Your task to perform on an android device: Open ESPN.com Image 0: 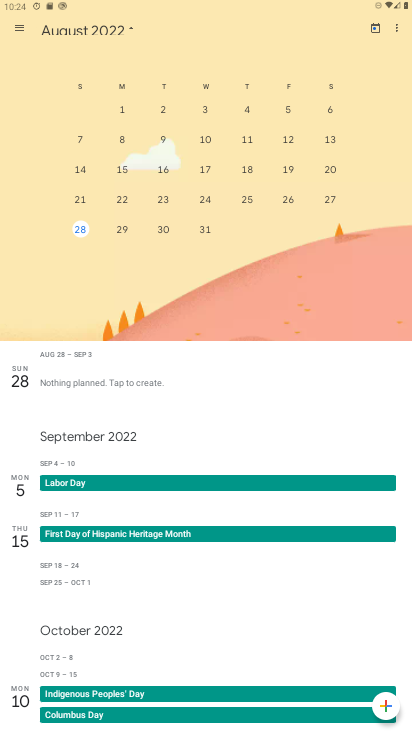
Step 0: press home button
Your task to perform on an android device: Open ESPN.com Image 1: 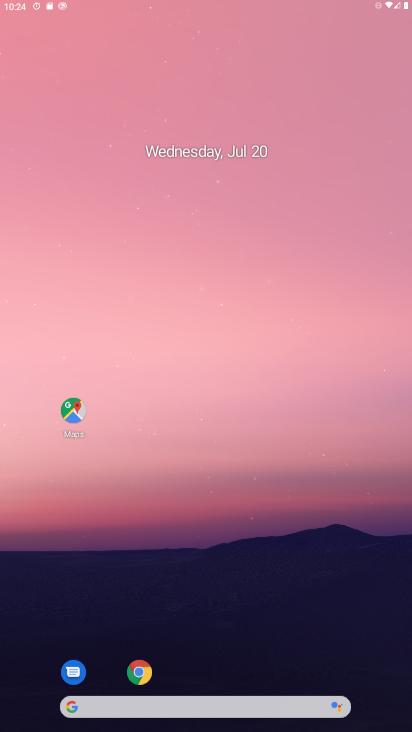
Step 1: drag from (371, 680) to (180, 3)
Your task to perform on an android device: Open ESPN.com Image 2: 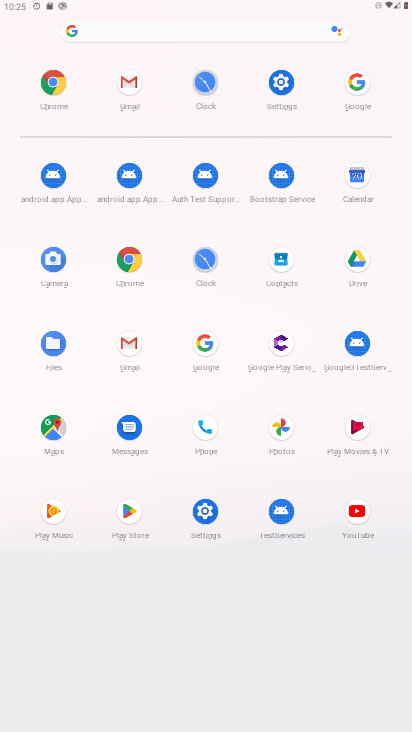
Step 2: click (210, 346)
Your task to perform on an android device: Open ESPN.com Image 3: 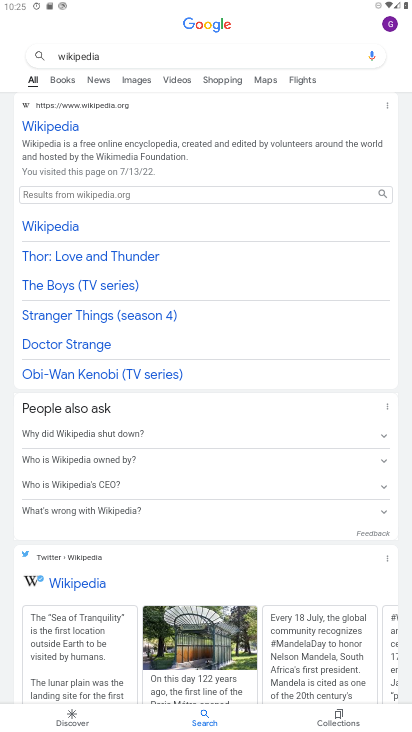
Step 3: press back button
Your task to perform on an android device: Open ESPN.com Image 4: 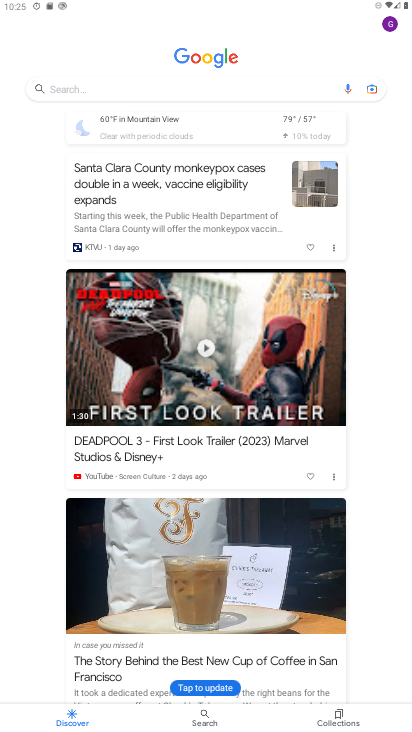
Step 4: click (61, 87)
Your task to perform on an android device: Open ESPN.com Image 5: 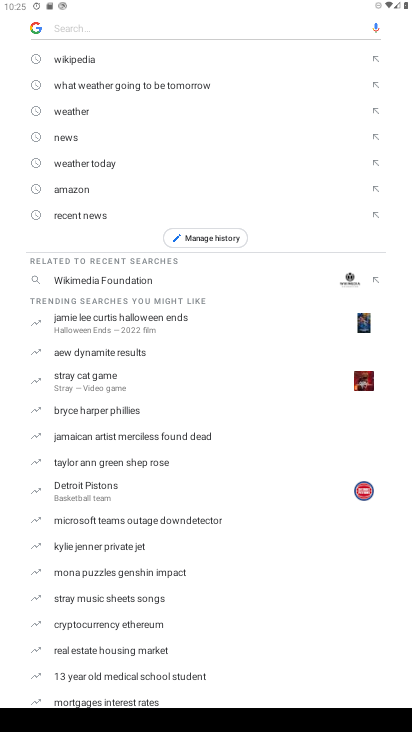
Step 5: type "ESPN.com"
Your task to perform on an android device: Open ESPN.com Image 6: 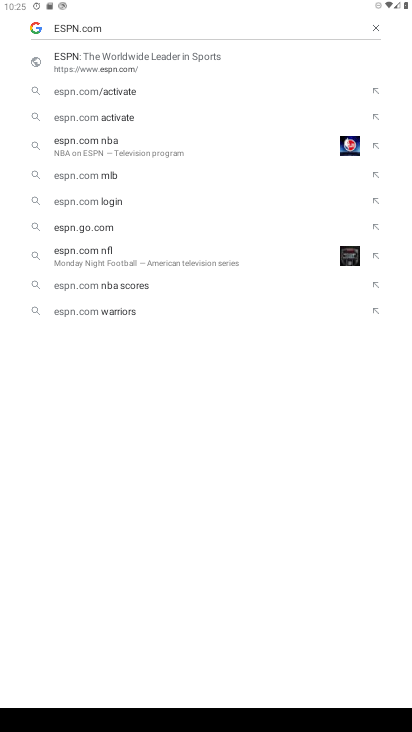
Step 6: click (85, 61)
Your task to perform on an android device: Open ESPN.com Image 7: 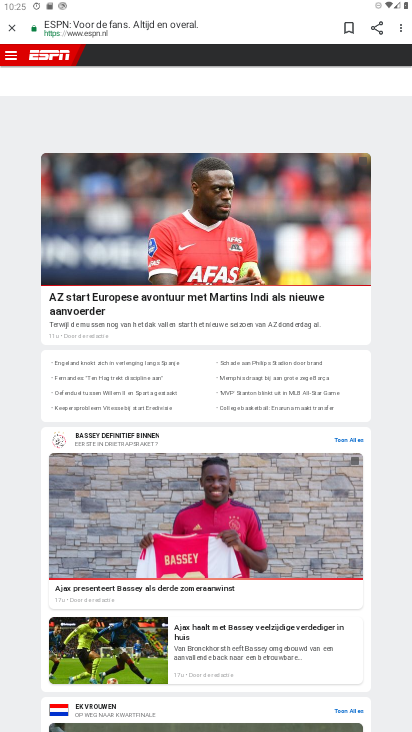
Step 7: task complete